Your task to perform on an android device: turn pop-ups on in chrome Image 0: 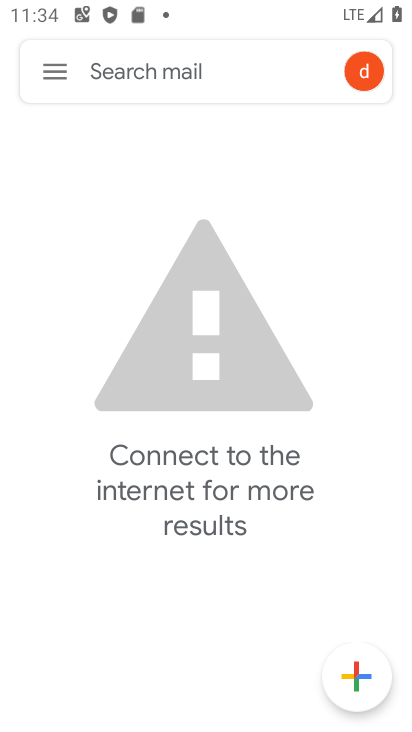
Step 0: press home button
Your task to perform on an android device: turn pop-ups on in chrome Image 1: 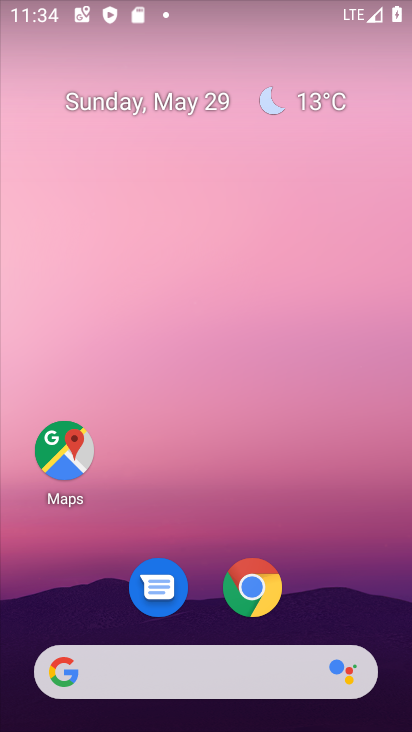
Step 1: click (253, 580)
Your task to perform on an android device: turn pop-ups on in chrome Image 2: 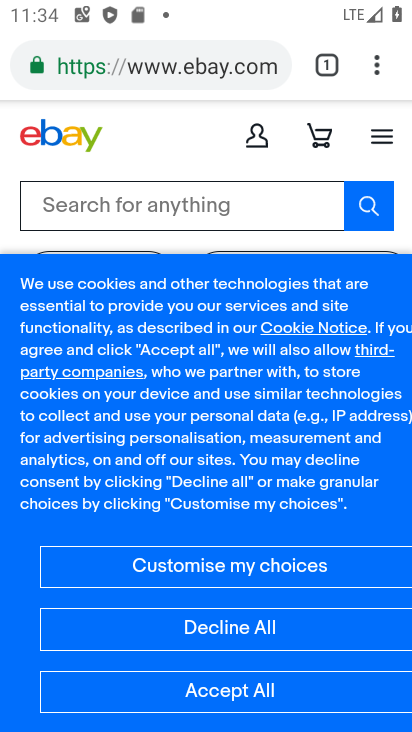
Step 2: drag from (383, 72) to (252, 641)
Your task to perform on an android device: turn pop-ups on in chrome Image 3: 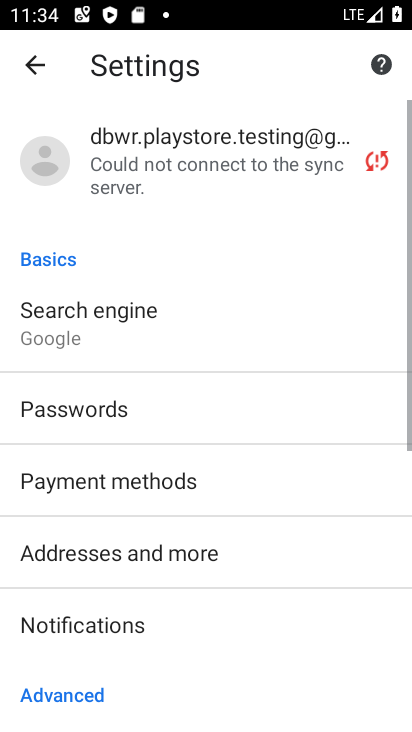
Step 3: drag from (252, 594) to (271, 199)
Your task to perform on an android device: turn pop-ups on in chrome Image 4: 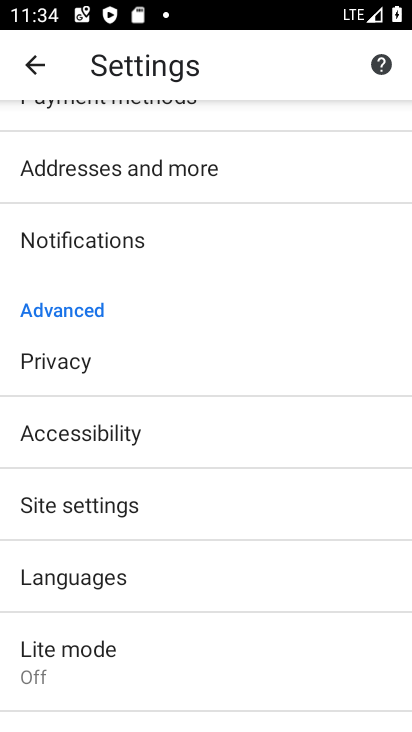
Step 4: click (192, 501)
Your task to perform on an android device: turn pop-ups on in chrome Image 5: 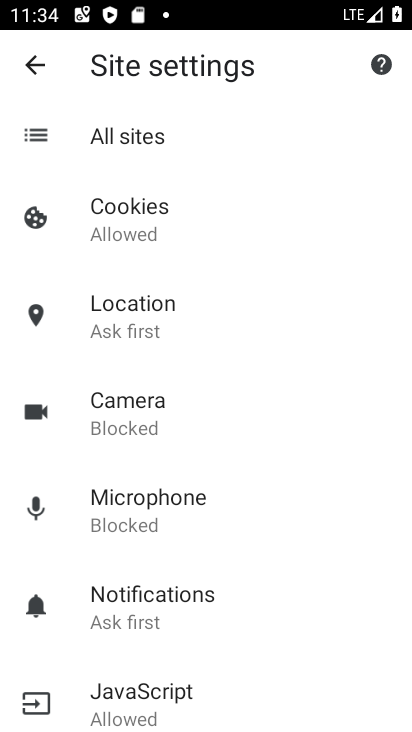
Step 5: drag from (231, 590) to (277, 221)
Your task to perform on an android device: turn pop-ups on in chrome Image 6: 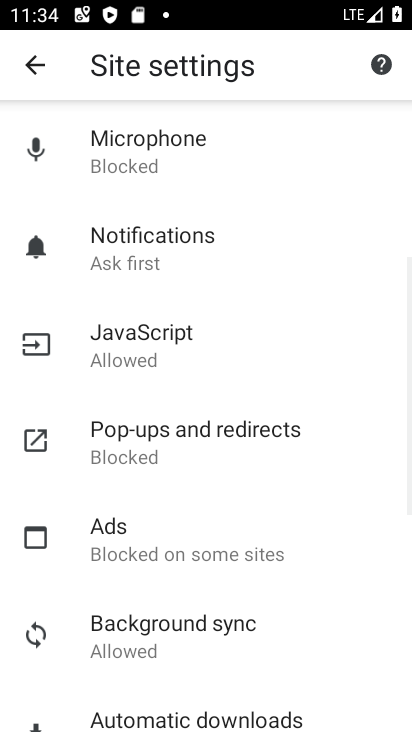
Step 6: click (197, 467)
Your task to perform on an android device: turn pop-ups on in chrome Image 7: 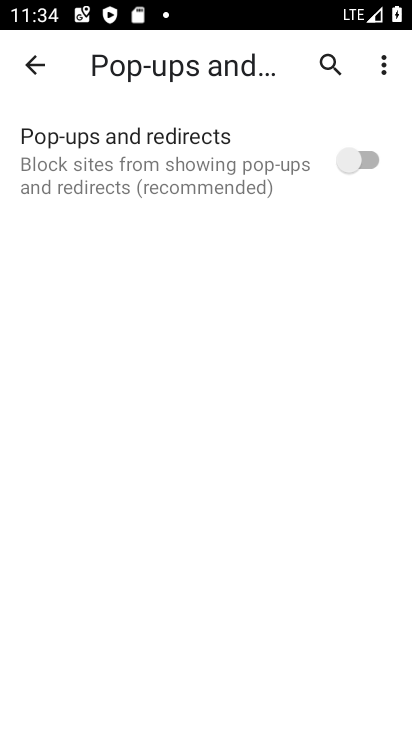
Step 7: click (340, 147)
Your task to perform on an android device: turn pop-ups on in chrome Image 8: 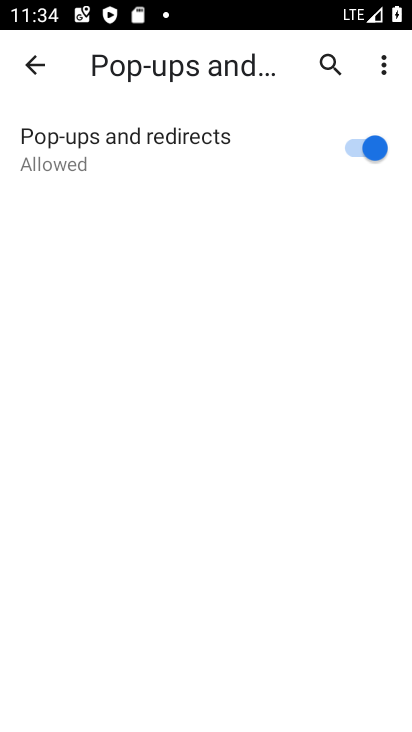
Step 8: task complete